Your task to perform on an android device: open sync settings in chrome Image 0: 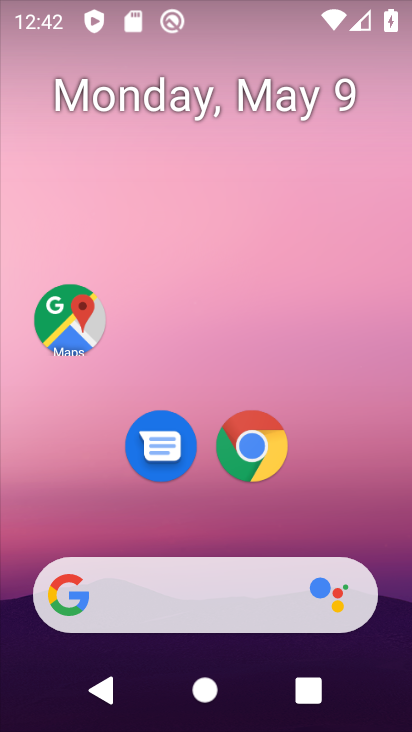
Step 0: click (262, 443)
Your task to perform on an android device: open sync settings in chrome Image 1: 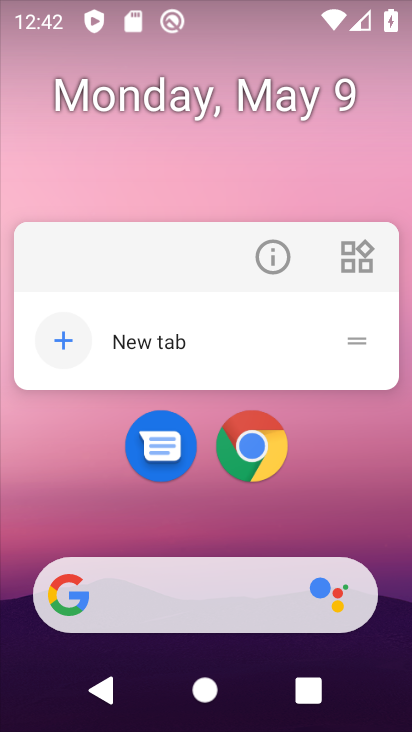
Step 1: click (253, 457)
Your task to perform on an android device: open sync settings in chrome Image 2: 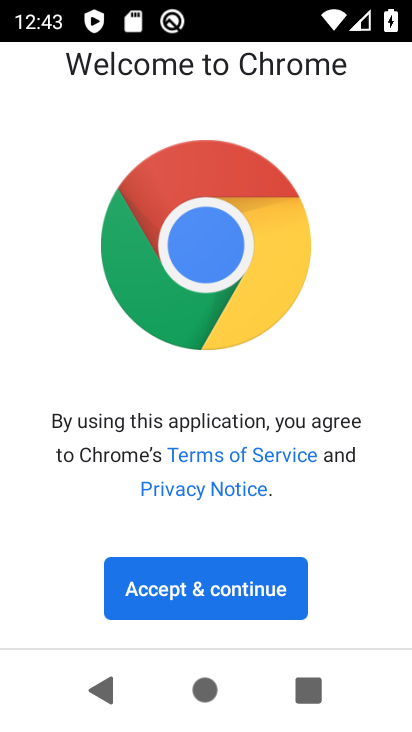
Step 2: click (222, 585)
Your task to perform on an android device: open sync settings in chrome Image 3: 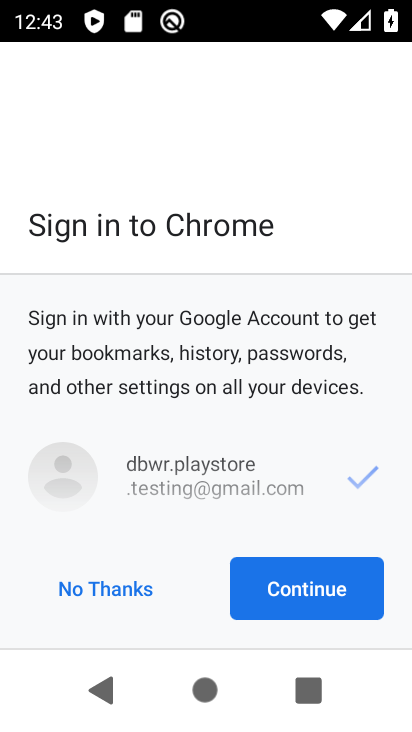
Step 3: click (294, 569)
Your task to perform on an android device: open sync settings in chrome Image 4: 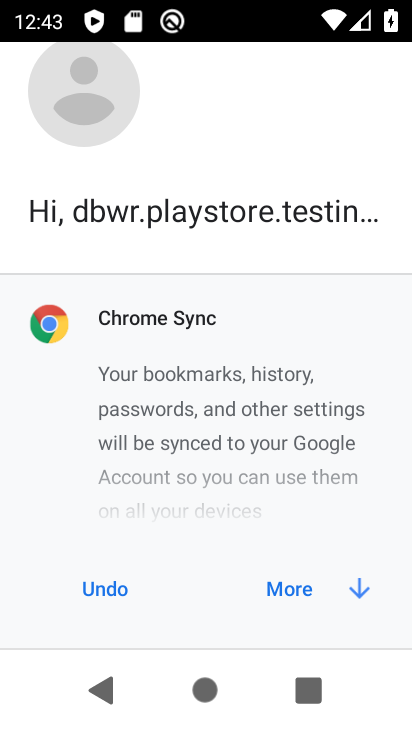
Step 4: click (293, 570)
Your task to perform on an android device: open sync settings in chrome Image 5: 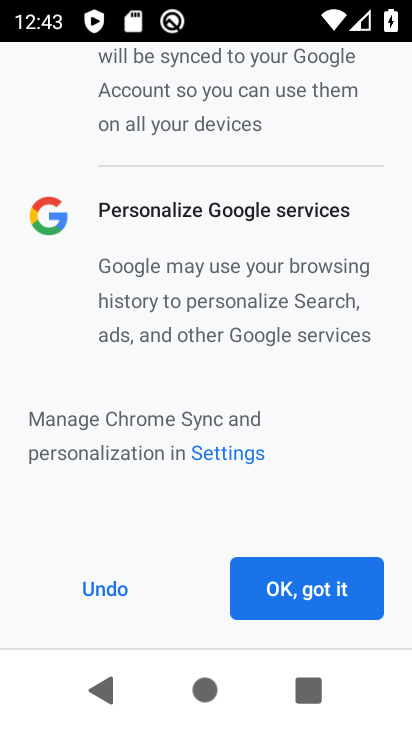
Step 5: click (289, 579)
Your task to perform on an android device: open sync settings in chrome Image 6: 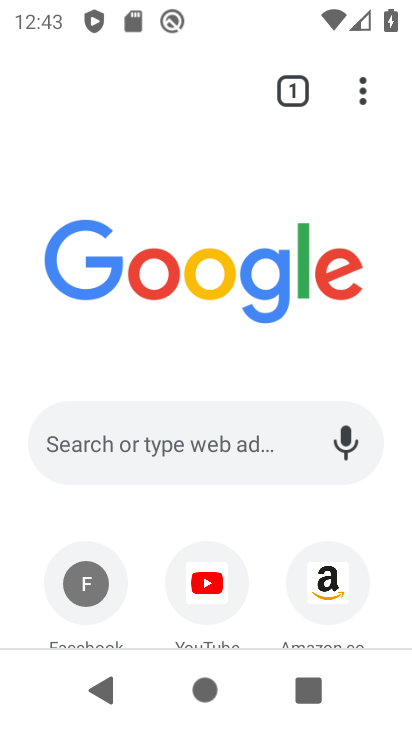
Step 6: click (352, 96)
Your task to perform on an android device: open sync settings in chrome Image 7: 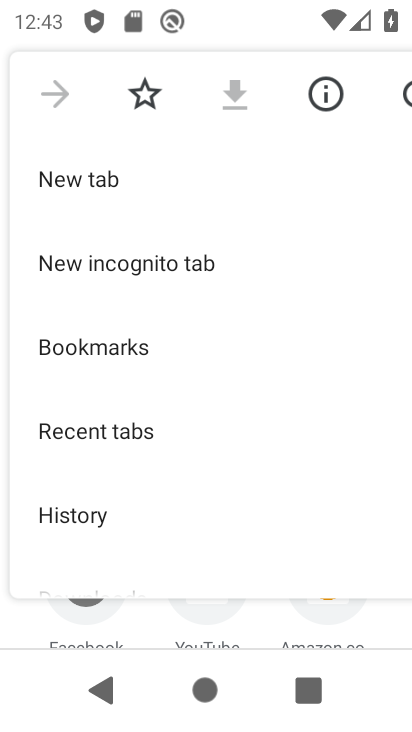
Step 7: drag from (218, 542) to (246, 276)
Your task to perform on an android device: open sync settings in chrome Image 8: 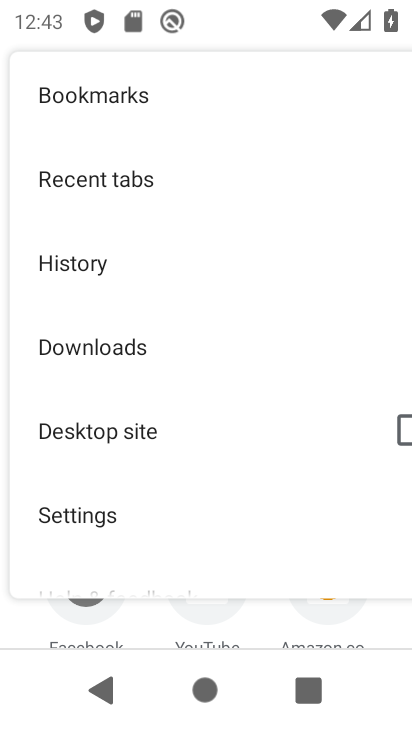
Step 8: click (167, 507)
Your task to perform on an android device: open sync settings in chrome Image 9: 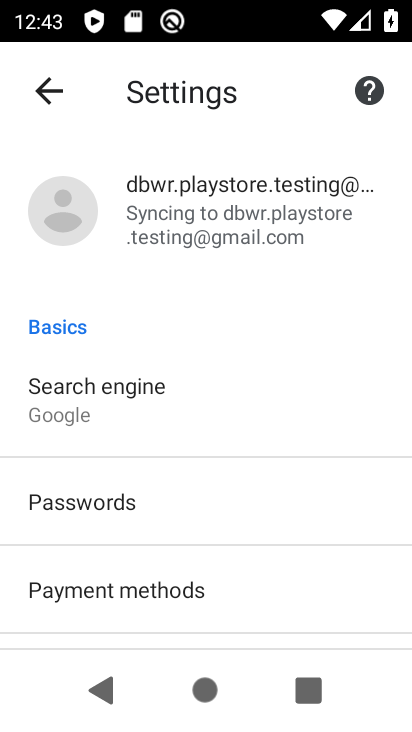
Step 9: click (212, 252)
Your task to perform on an android device: open sync settings in chrome Image 10: 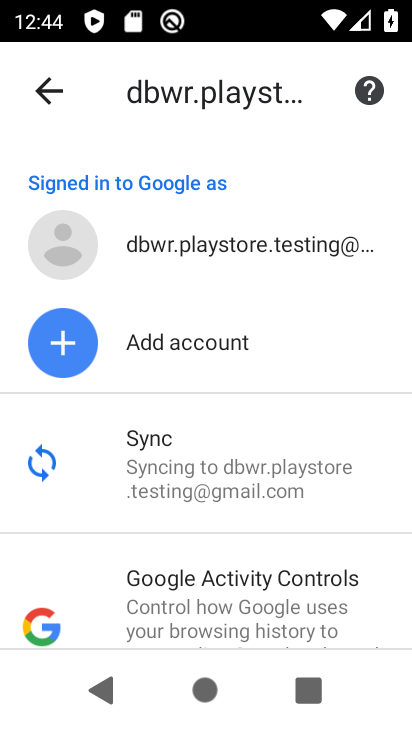
Step 10: click (223, 481)
Your task to perform on an android device: open sync settings in chrome Image 11: 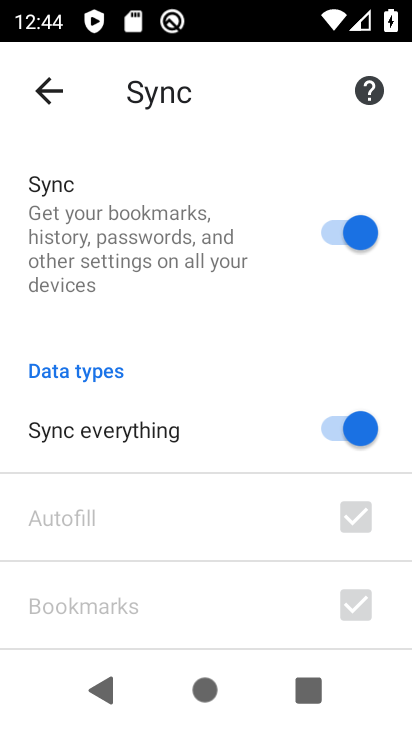
Step 11: task complete